Your task to perform on an android device: Search for "The Dispatcher" by John Scalzi on Goodreads Image 0: 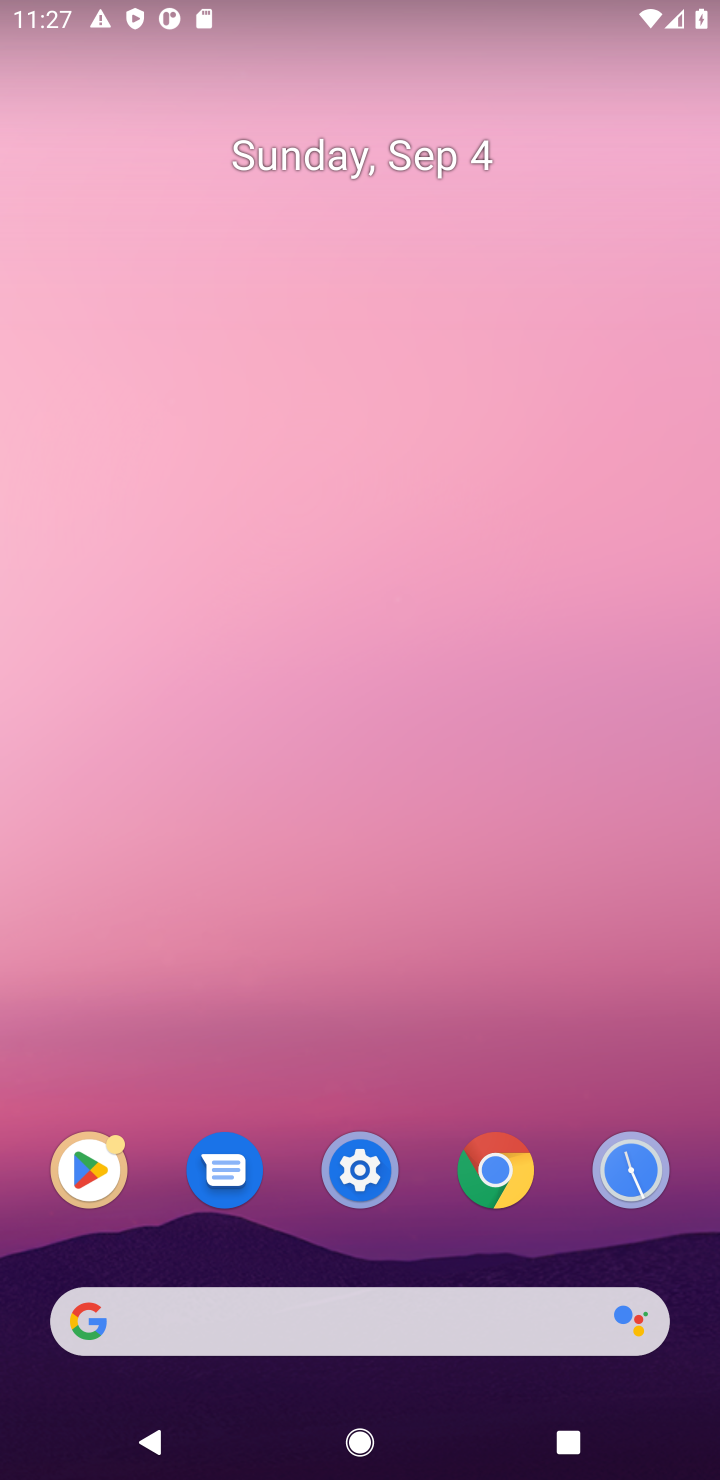
Step 0: click (360, 1304)
Your task to perform on an android device: Search for "The Dispatcher" by John Scalzi on Goodreads Image 1: 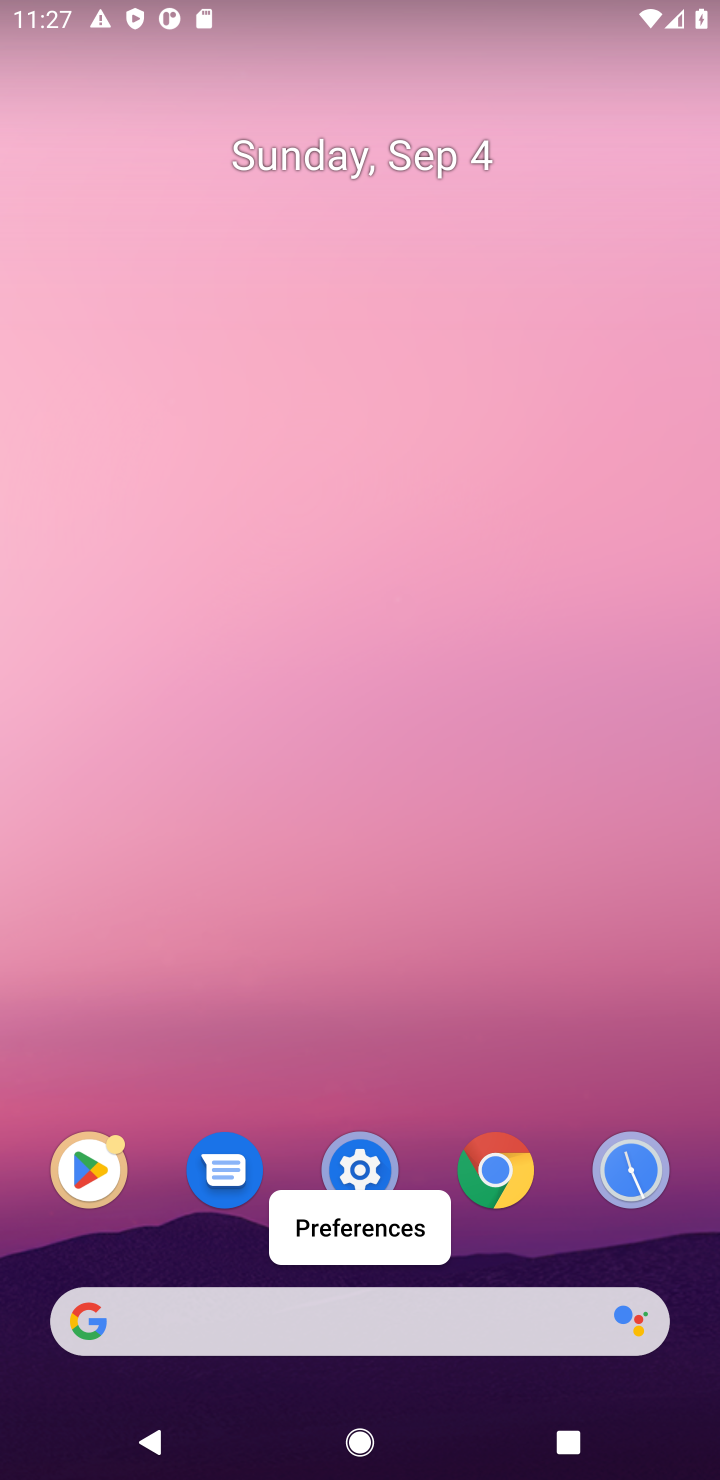
Step 1: click (360, 1304)
Your task to perform on an android device: Search for "The Dispatcher" by John Scalzi on Goodreads Image 2: 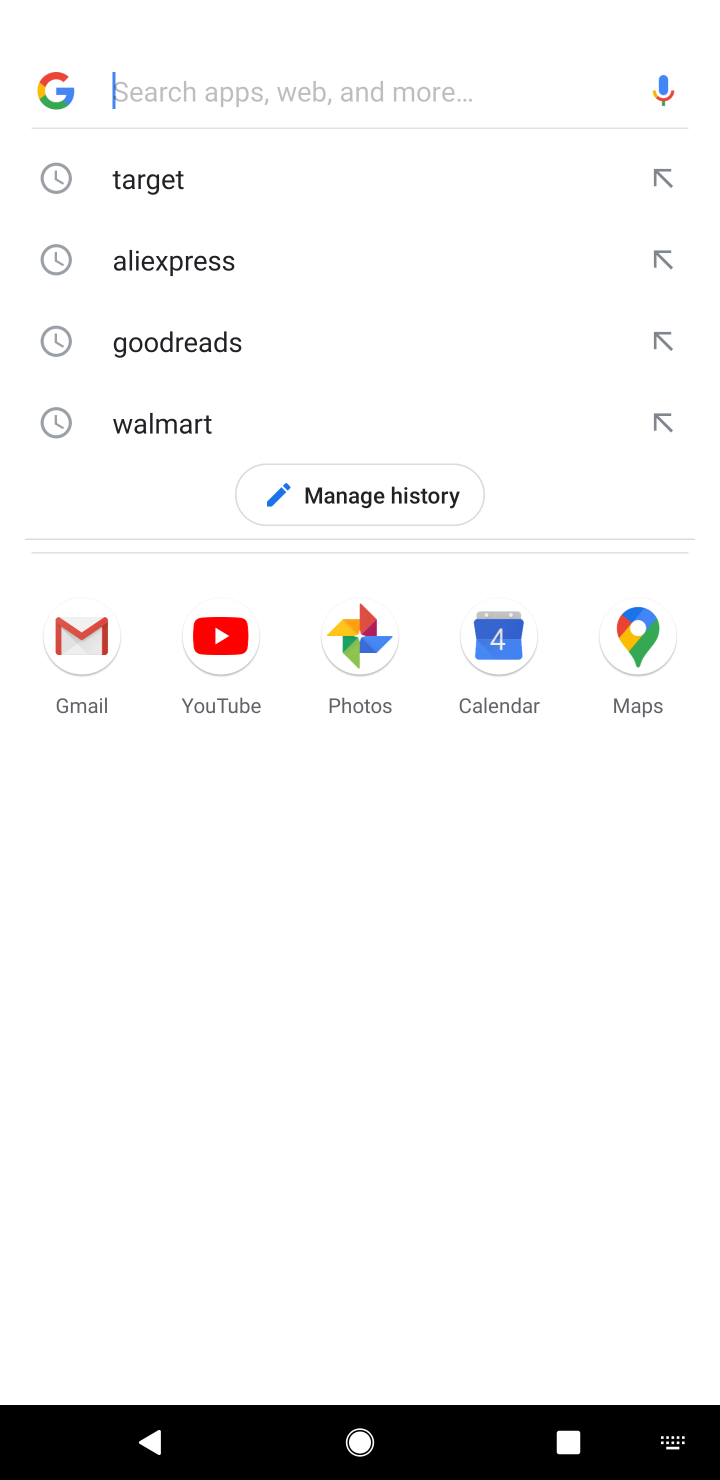
Step 2: click (205, 328)
Your task to perform on an android device: Search for "The Dispatcher" by John Scalzi on Goodreads Image 3: 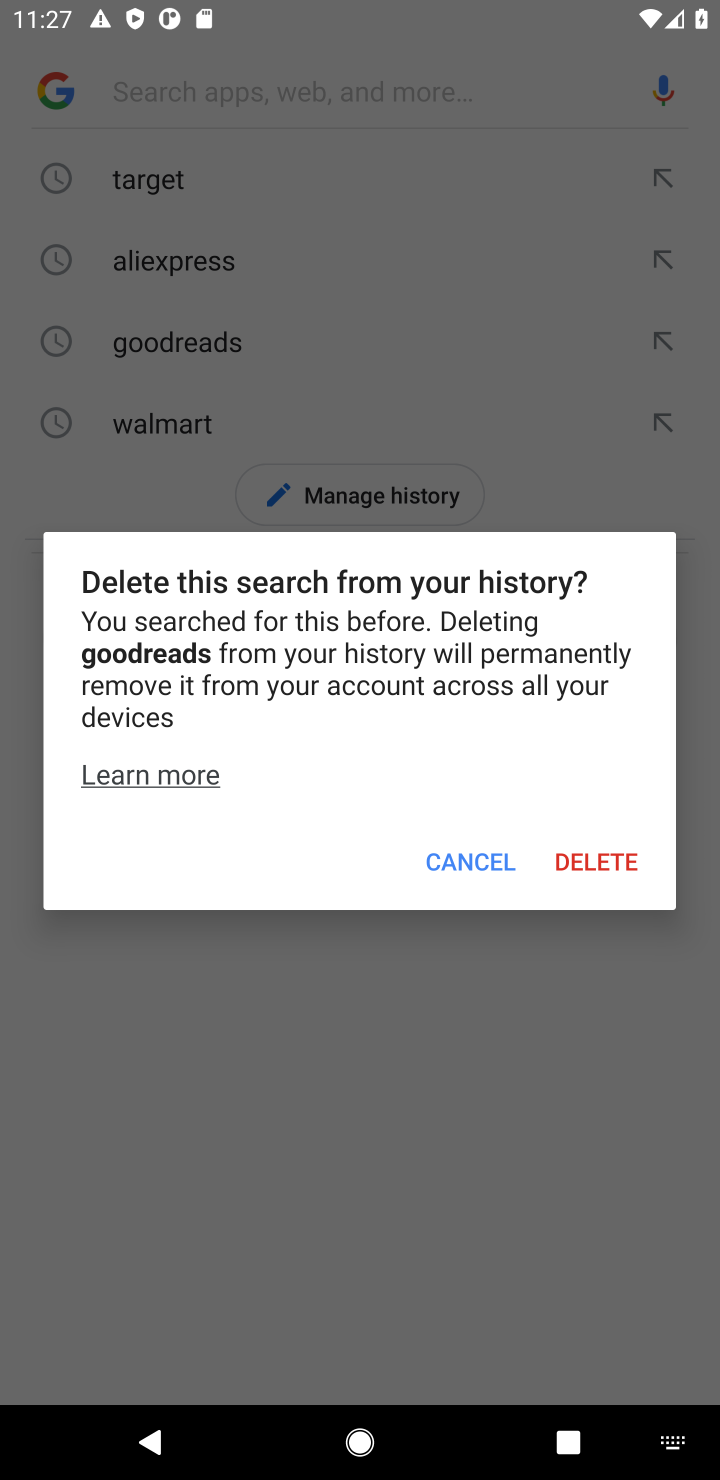
Step 3: click (441, 862)
Your task to perform on an android device: Search for "The Dispatcher" by John Scalzi on Goodreads Image 4: 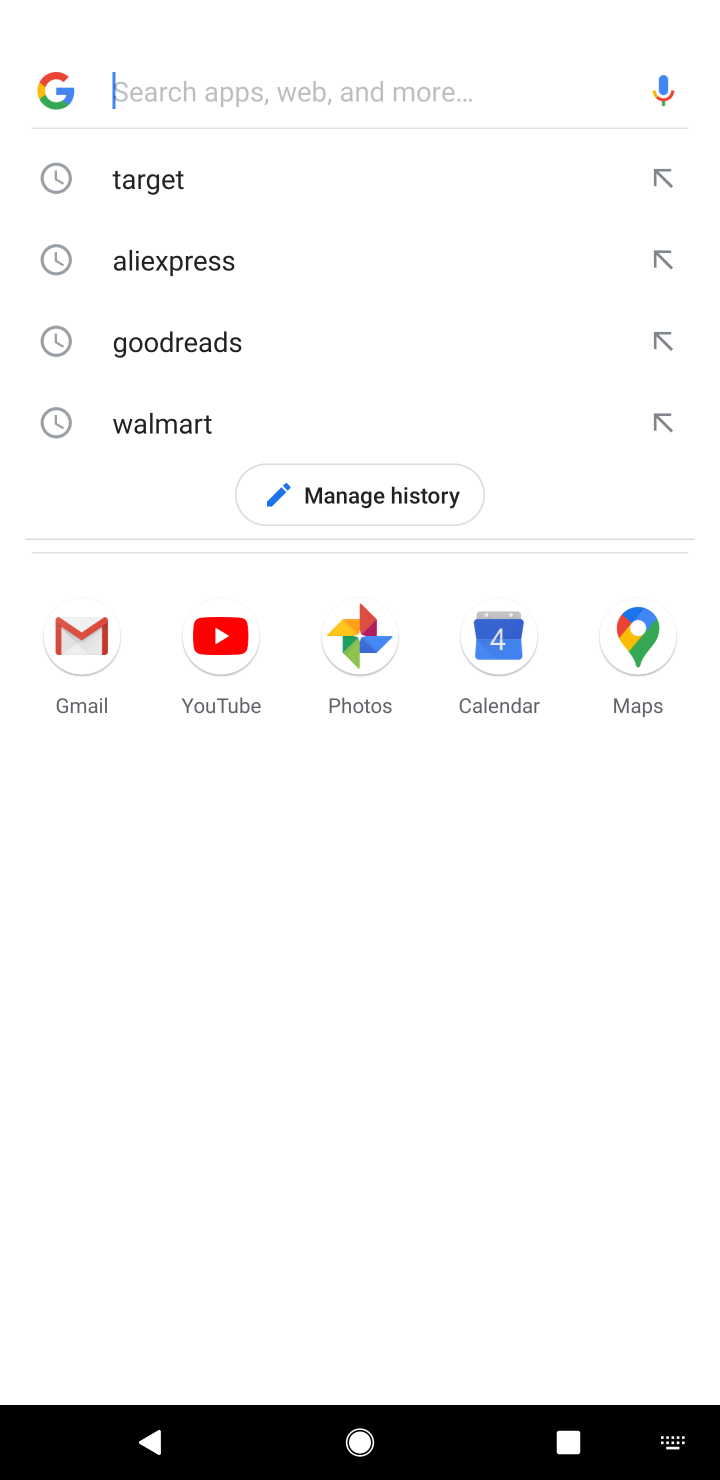
Step 4: click (248, 338)
Your task to perform on an android device: Search for "The Dispatcher" by John Scalzi on Goodreads Image 5: 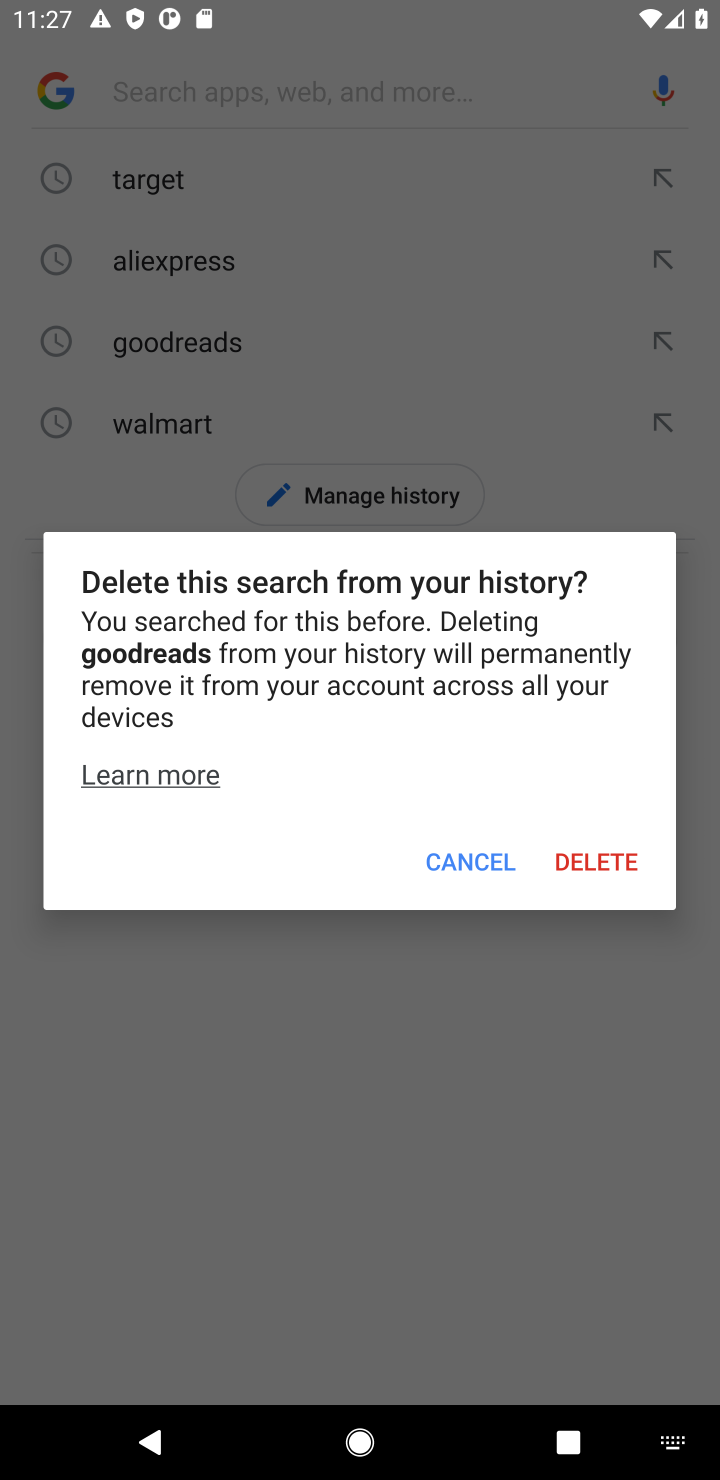
Step 5: click (459, 840)
Your task to perform on an android device: Search for "The Dispatcher" by John Scalzi on Goodreads Image 6: 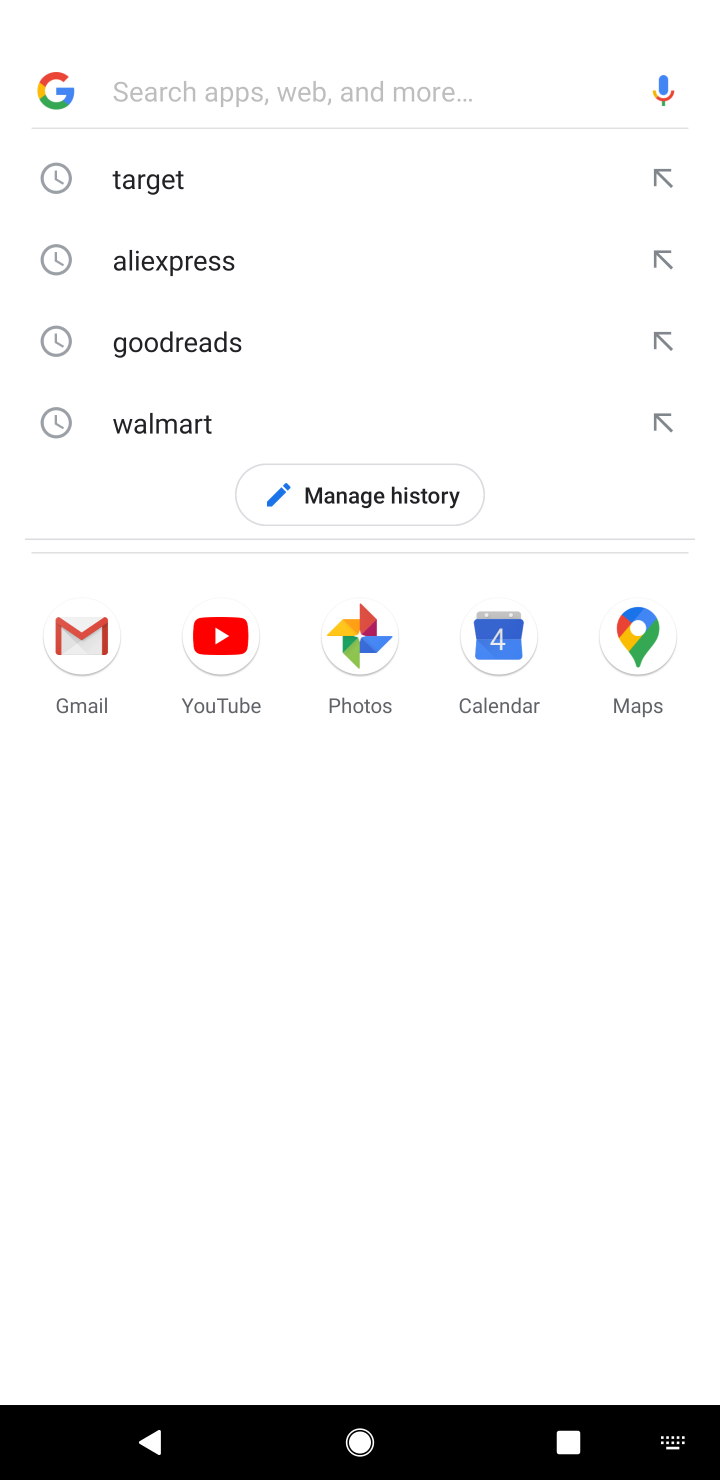
Step 6: click (191, 340)
Your task to perform on an android device: Search for "The Dispatcher" by John Scalzi on Goodreads Image 7: 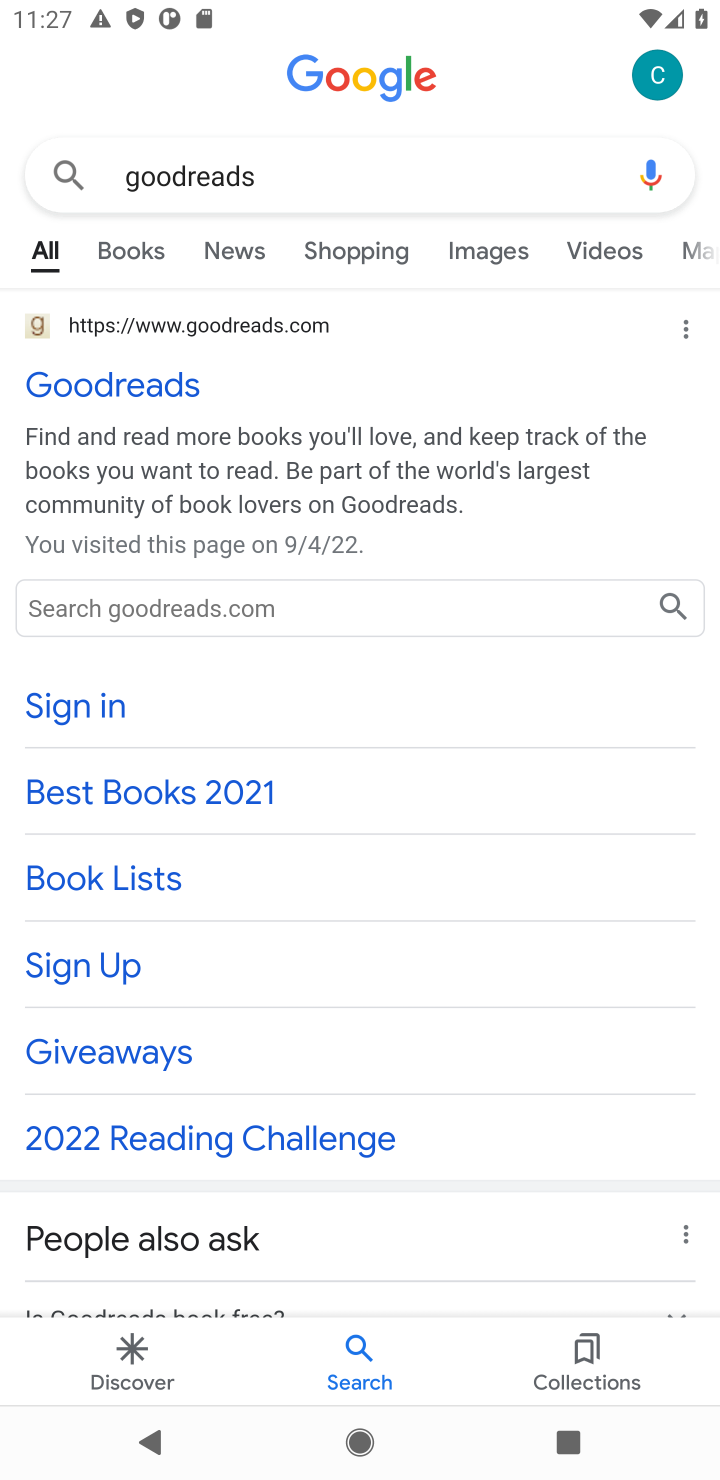
Step 7: click (178, 370)
Your task to perform on an android device: Search for "The Dispatcher" by John Scalzi on Goodreads Image 8: 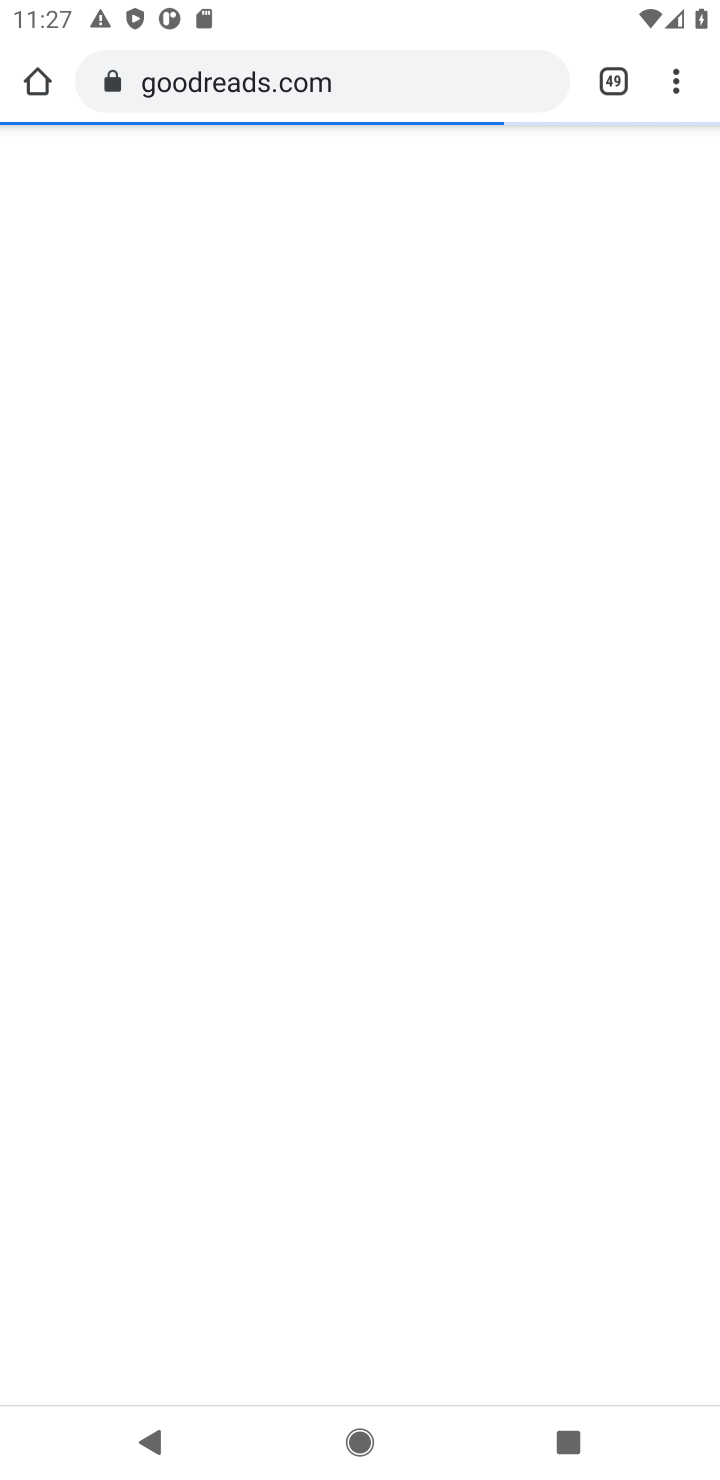
Step 8: click (177, 380)
Your task to perform on an android device: Search for "The Dispatcher" by John Scalzi on Goodreads Image 9: 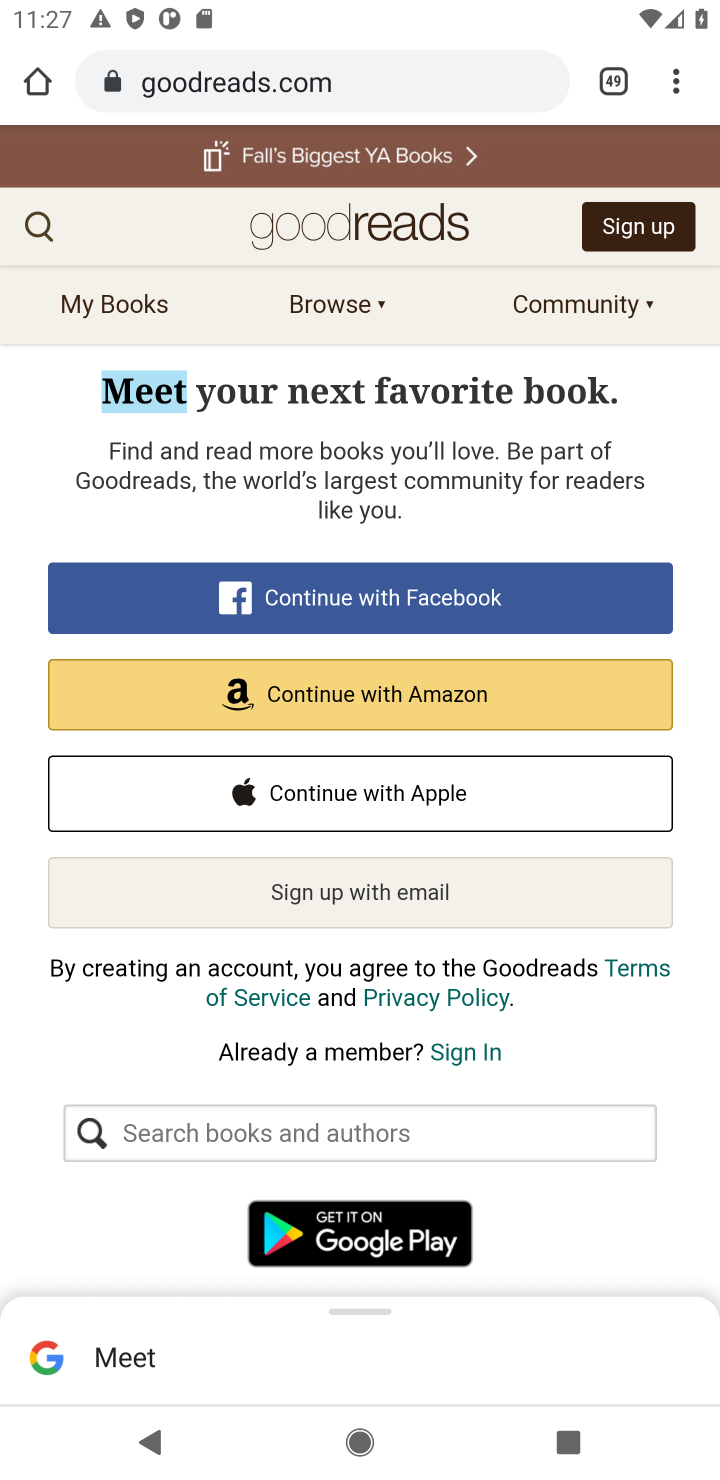
Step 9: click (45, 231)
Your task to perform on an android device: Search for "The Dispatcher" by John Scalzi on Goodreads Image 10: 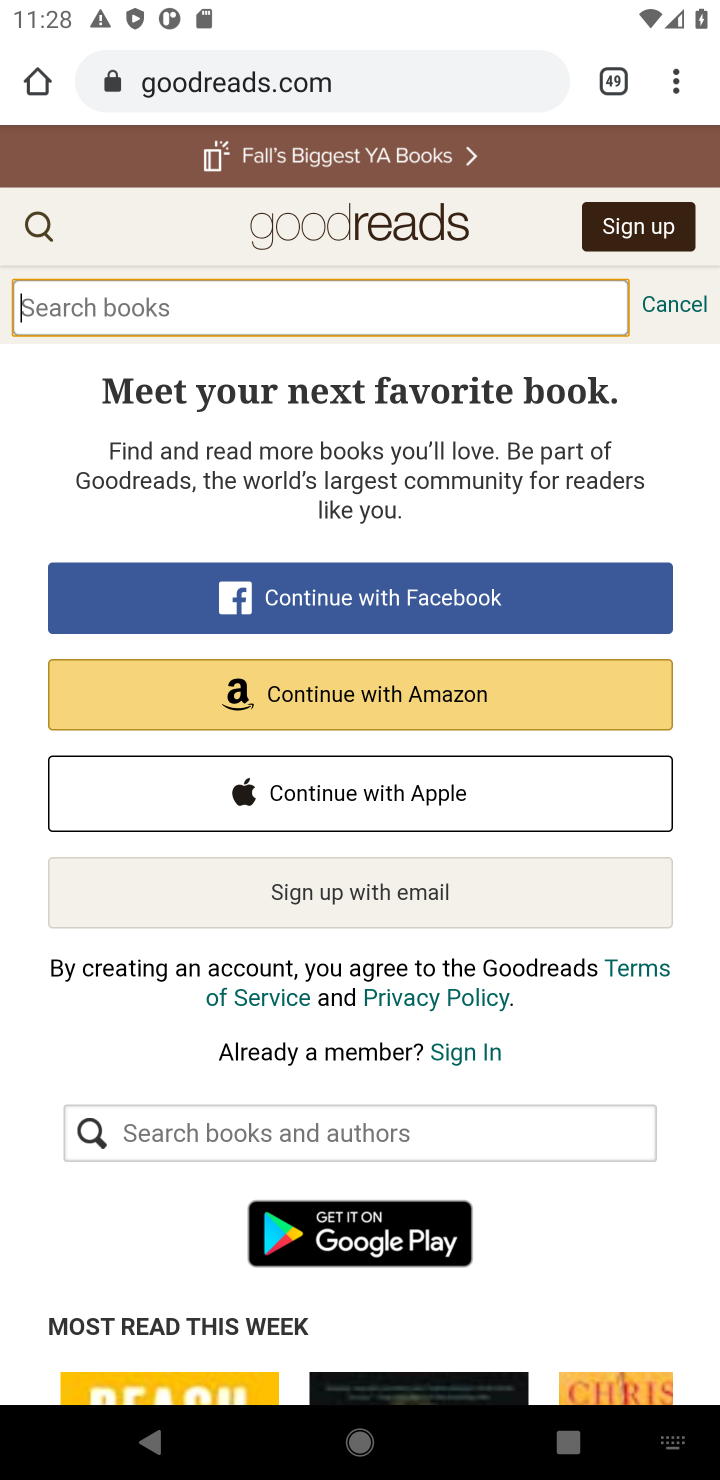
Step 10: type "The Dispatcher"
Your task to perform on an android device: Search for "The Dispatcher" by John Scalzi on Goodreads Image 11: 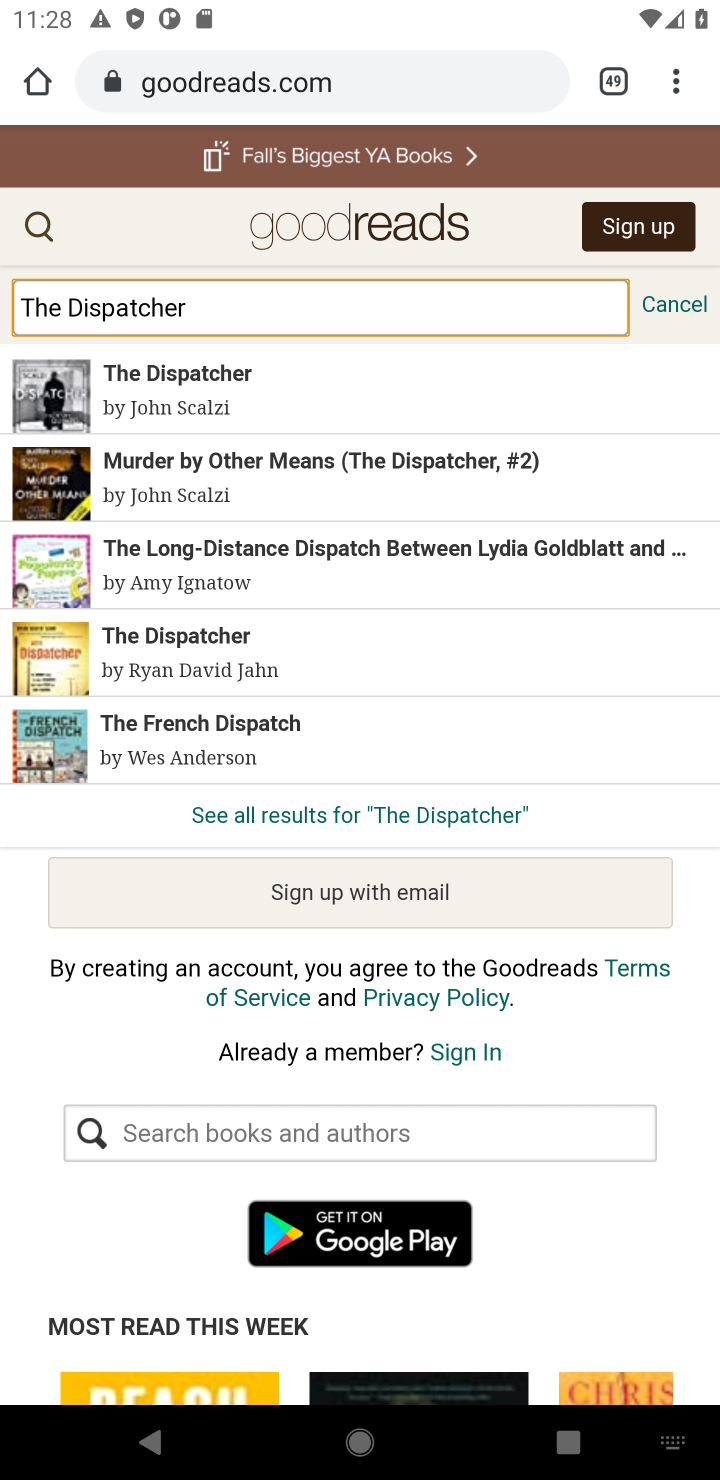
Step 11: click (328, 411)
Your task to perform on an android device: Search for "The Dispatcher" by John Scalzi on Goodreads Image 12: 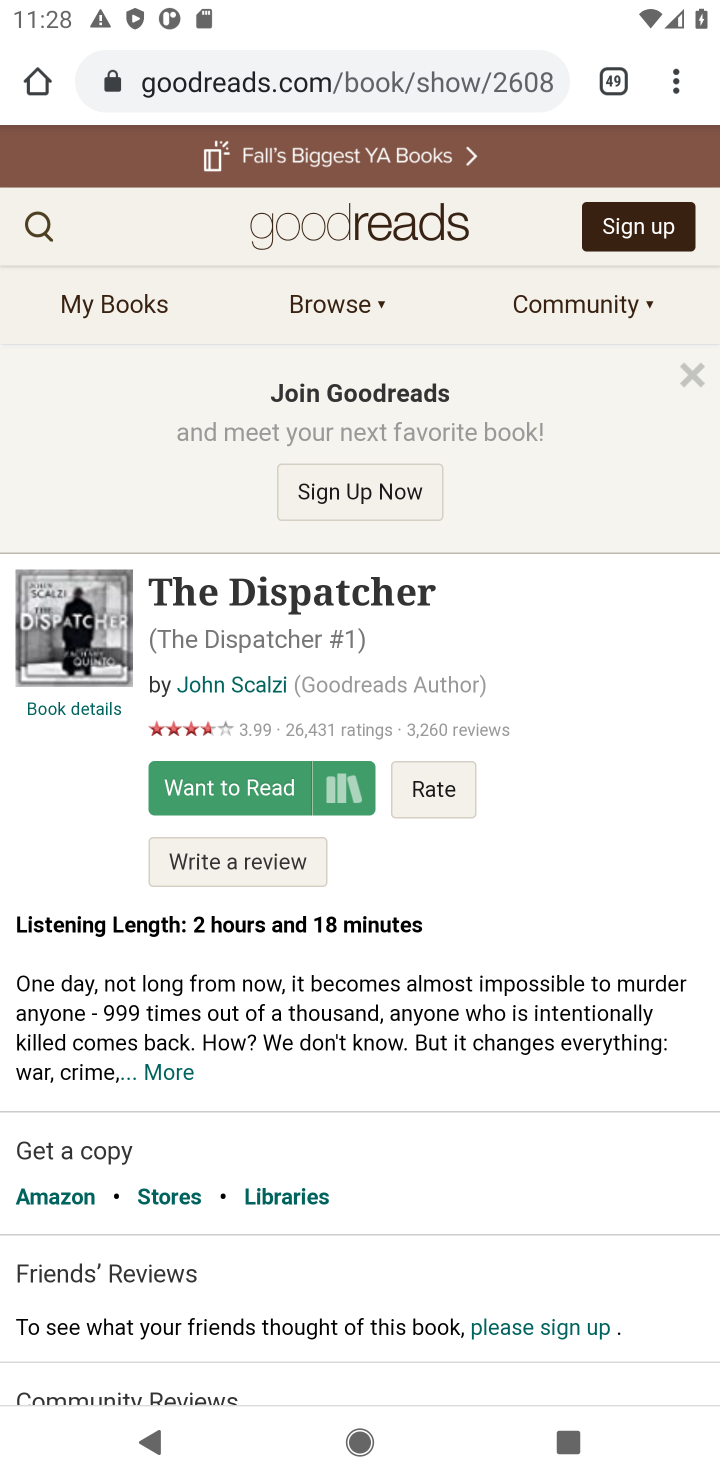
Step 12: task complete